Your task to perform on an android device: toggle improve location accuracy Image 0: 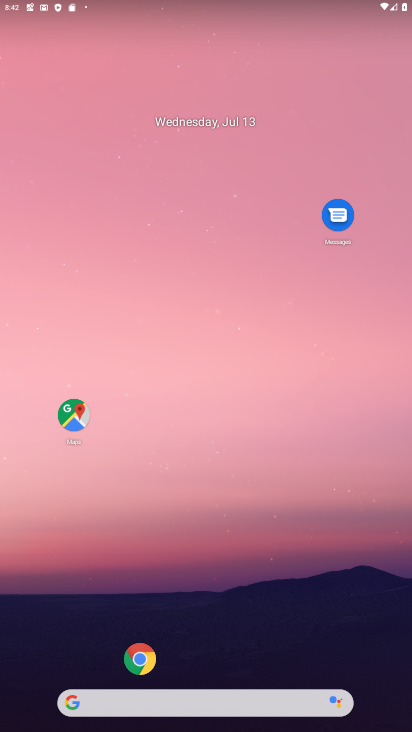
Step 0: click (200, 133)
Your task to perform on an android device: toggle improve location accuracy Image 1: 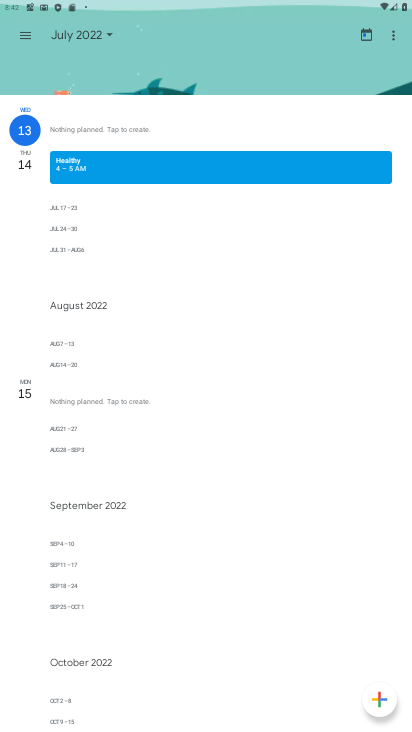
Step 1: press home button
Your task to perform on an android device: toggle improve location accuracy Image 2: 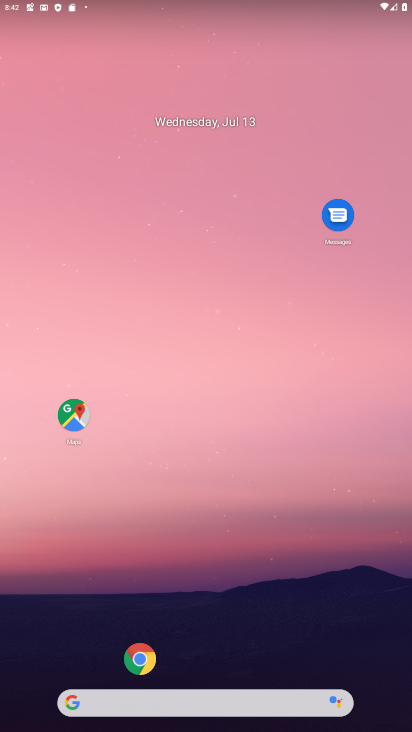
Step 2: drag from (15, 707) to (221, 43)
Your task to perform on an android device: toggle improve location accuracy Image 3: 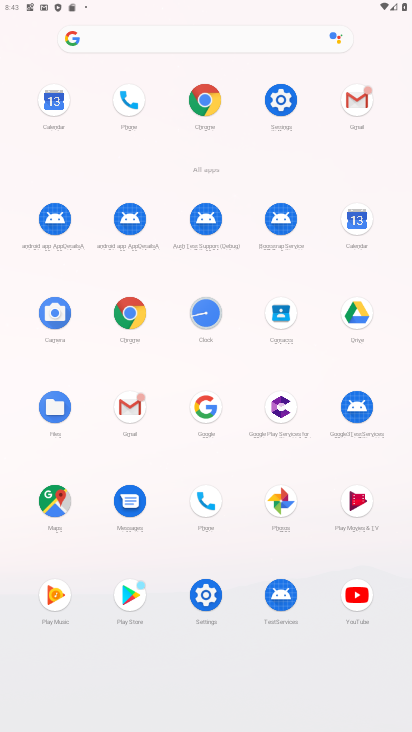
Step 3: click (204, 594)
Your task to perform on an android device: toggle improve location accuracy Image 4: 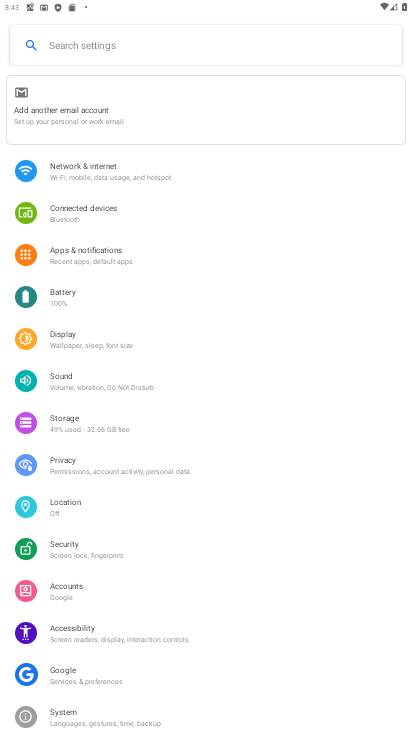
Step 4: click (89, 498)
Your task to perform on an android device: toggle improve location accuracy Image 5: 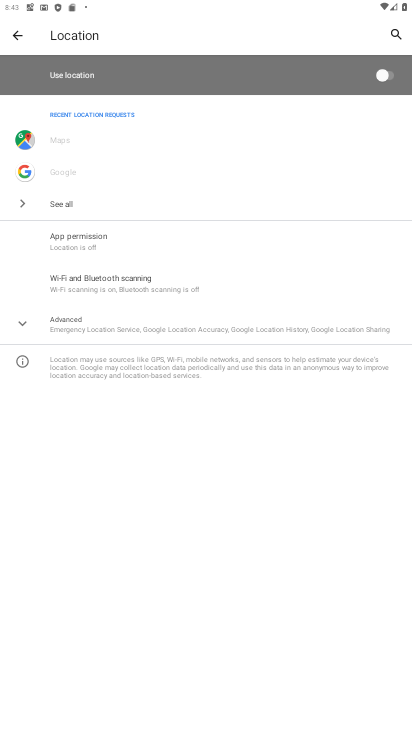
Step 5: click (104, 329)
Your task to perform on an android device: toggle improve location accuracy Image 6: 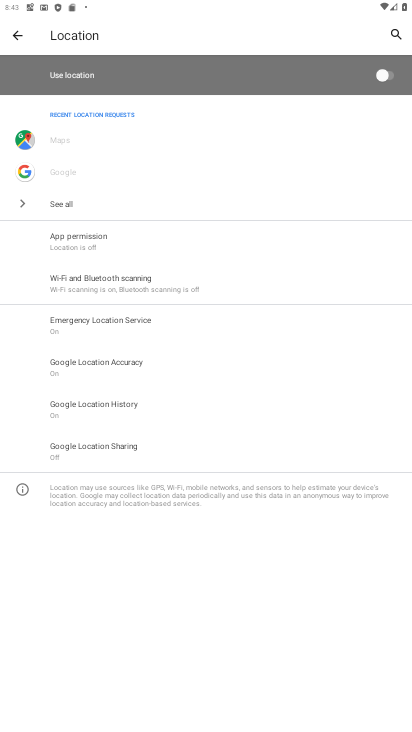
Step 6: click (104, 364)
Your task to perform on an android device: toggle improve location accuracy Image 7: 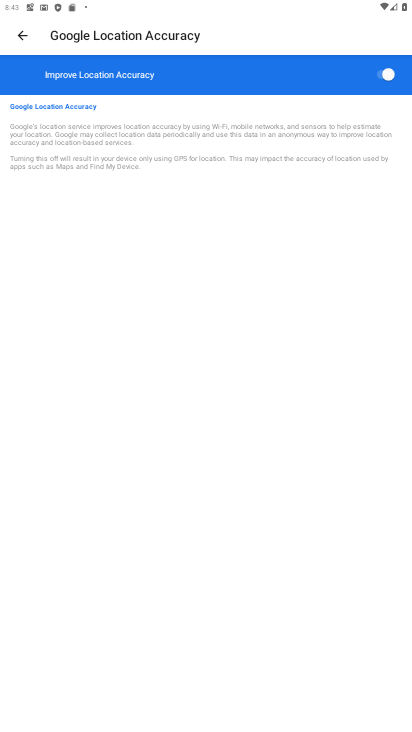
Step 7: task complete